Your task to perform on an android device: What's the weather going to be tomorrow? Image 0: 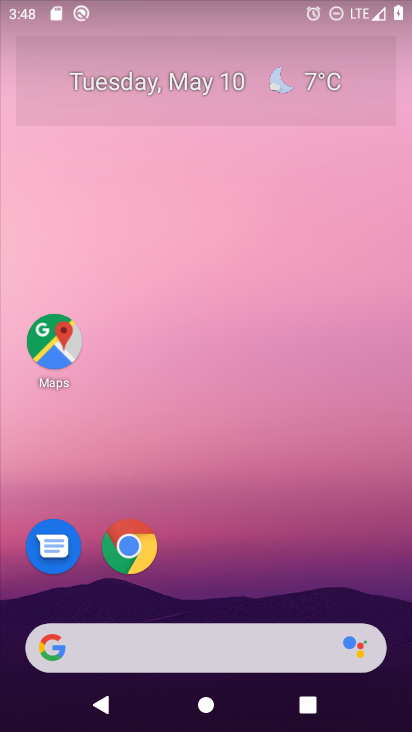
Step 0: click (320, 85)
Your task to perform on an android device: What's the weather going to be tomorrow? Image 1: 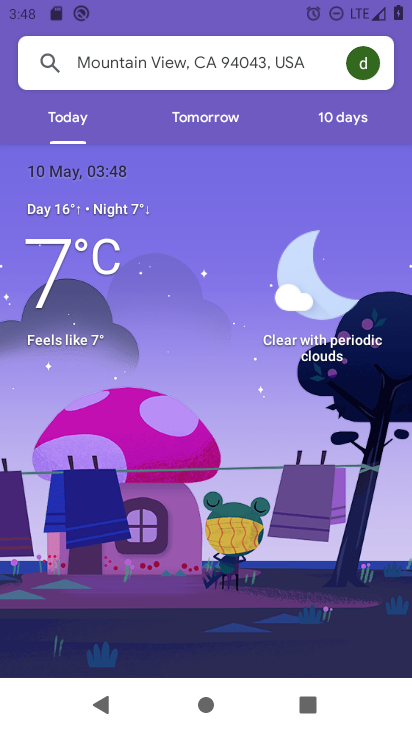
Step 1: click (208, 113)
Your task to perform on an android device: What's the weather going to be tomorrow? Image 2: 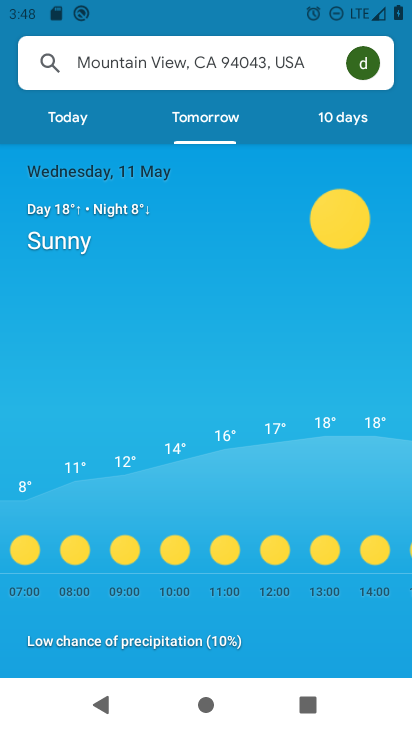
Step 2: task complete